Your task to perform on an android device: Go to Reddit.com Image 0: 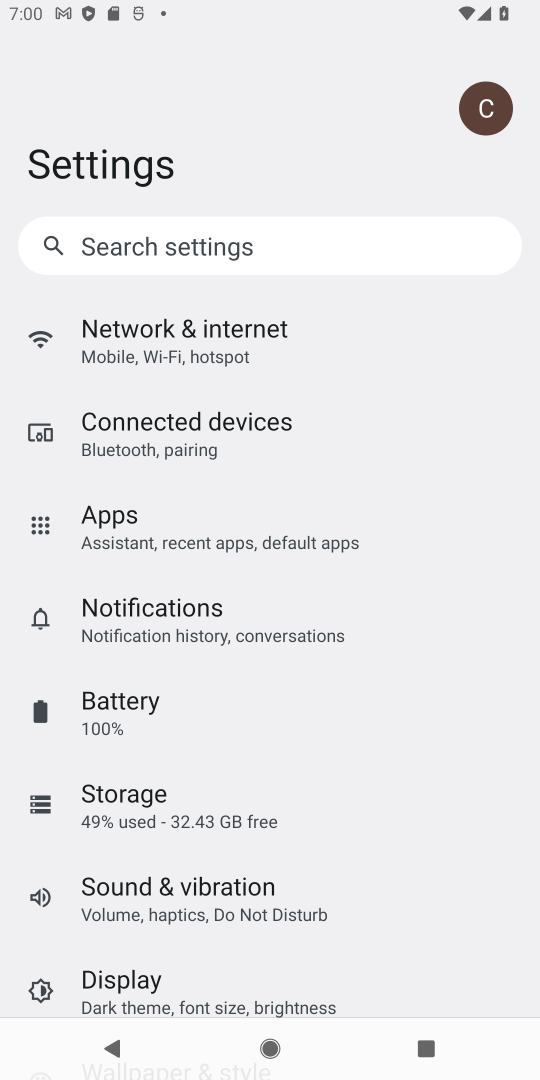
Step 0: press home button
Your task to perform on an android device: Go to Reddit.com Image 1: 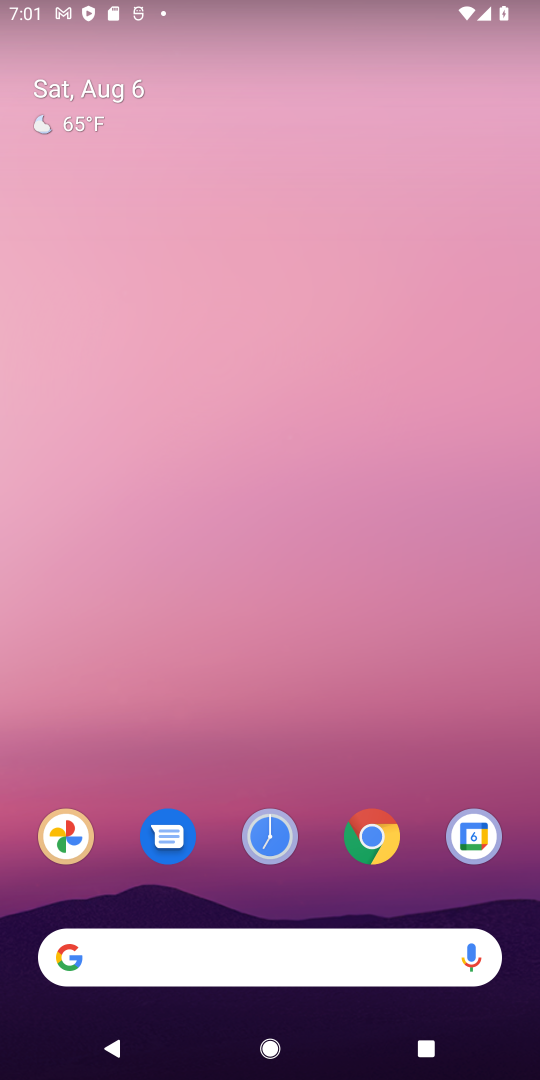
Step 1: drag from (403, 855) to (295, 98)
Your task to perform on an android device: Go to Reddit.com Image 2: 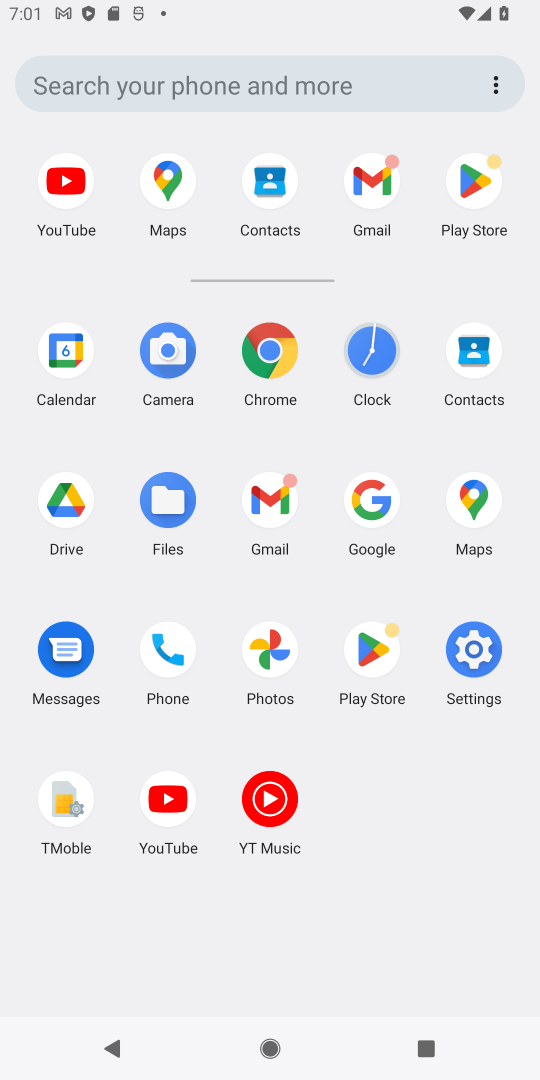
Step 2: click (385, 506)
Your task to perform on an android device: Go to Reddit.com Image 3: 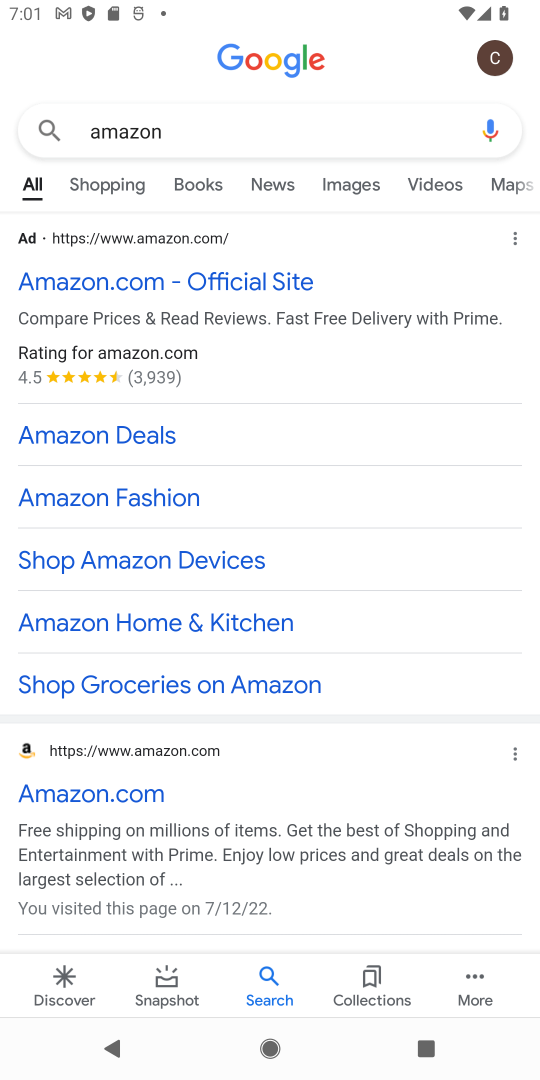
Step 3: press back button
Your task to perform on an android device: Go to Reddit.com Image 4: 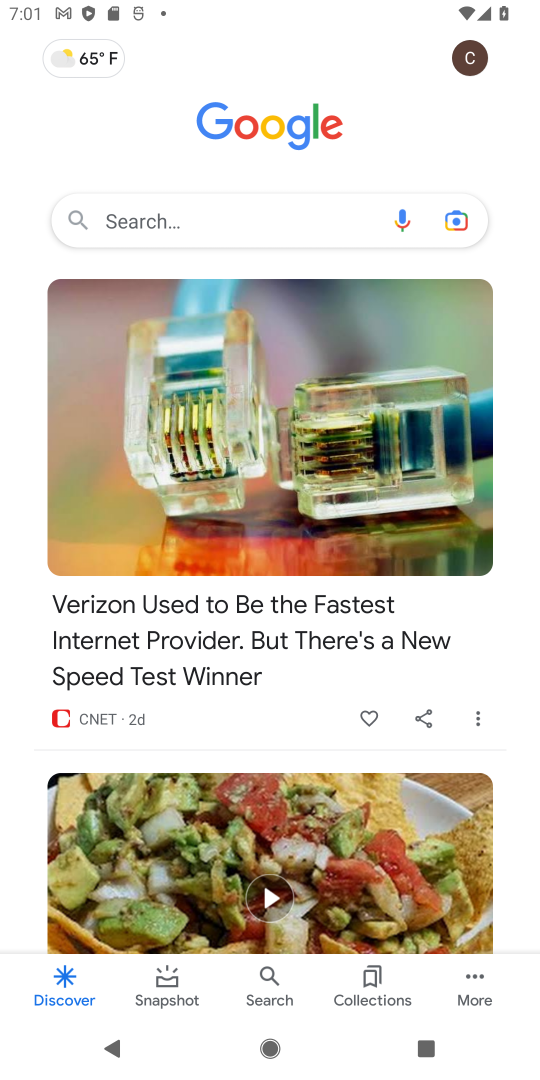
Step 4: click (129, 213)
Your task to perform on an android device: Go to Reddit.com Image 5: 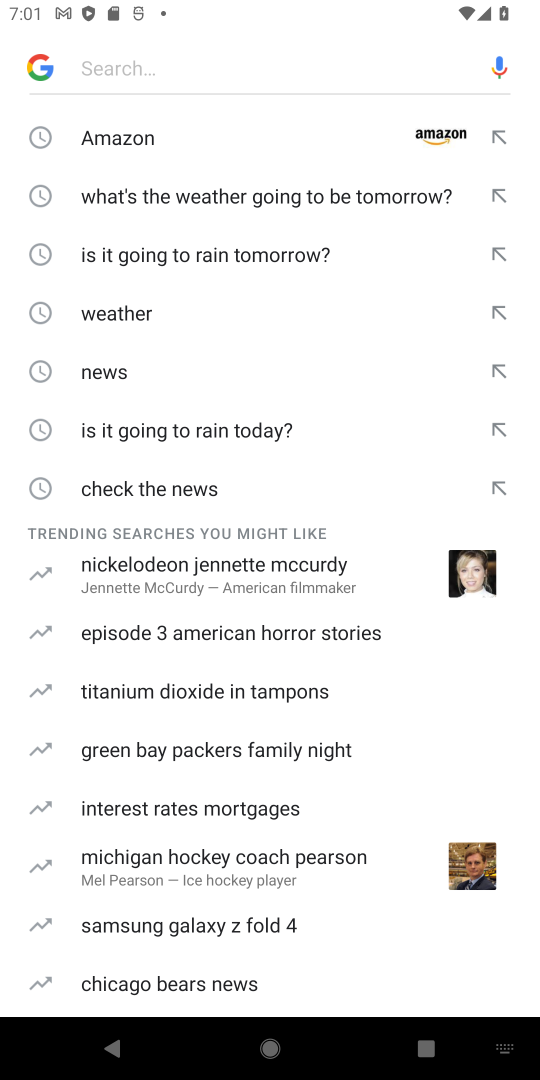
Step 5: type "Reddit.com"
Your task to perform on an android device: Go to Reddit.com Image 6: 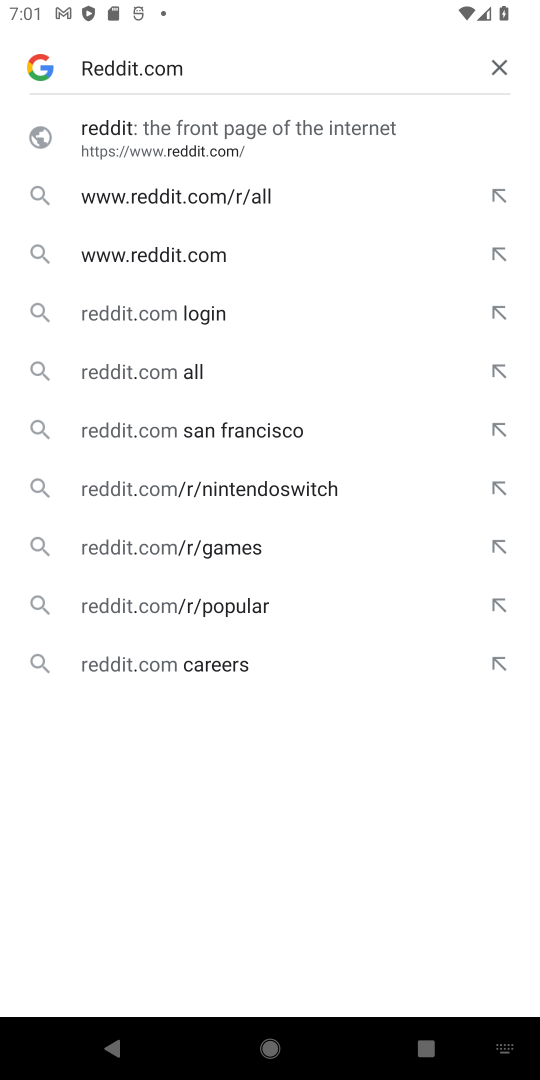
Step 6: click (148, 138)
Your task to perform on an android device: Go to Reddit.com Image 7: 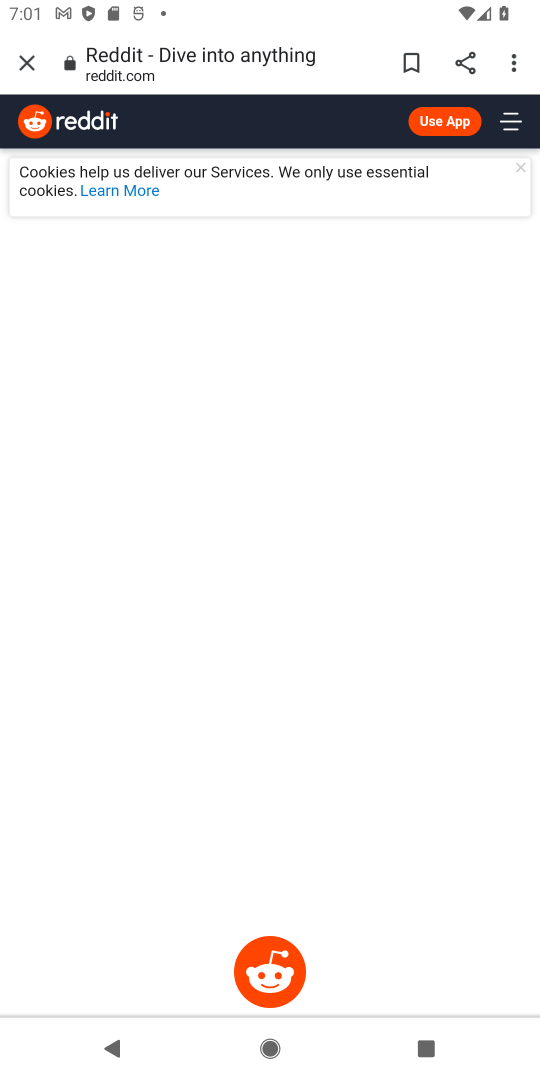
Step 7: task complete